Your task to perform on an android device: turn notification dots on Image 0: 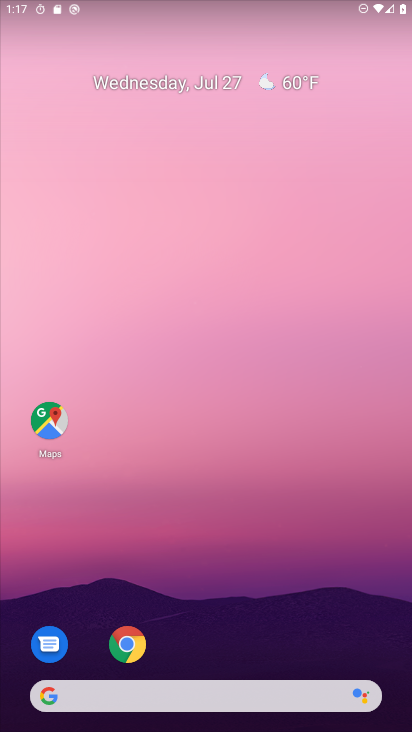
Step 0: drag from (206, 645) to (240, 141)
Your task to perform on an android device: turn notification dots on Image 1: 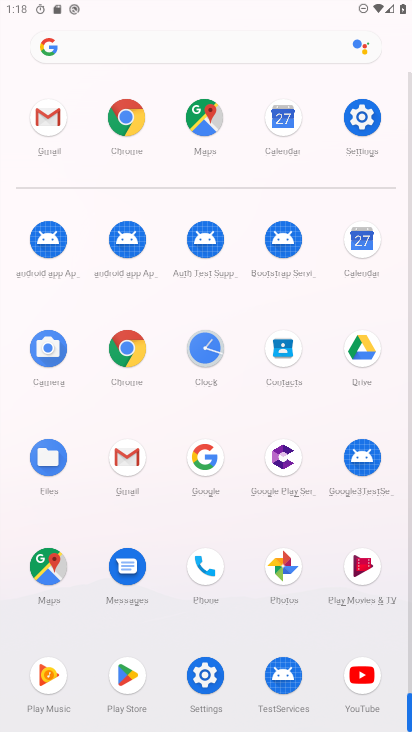
Step 1: click (202, 669)
Your task to perform on an android device: turn notification dots on Image 2: 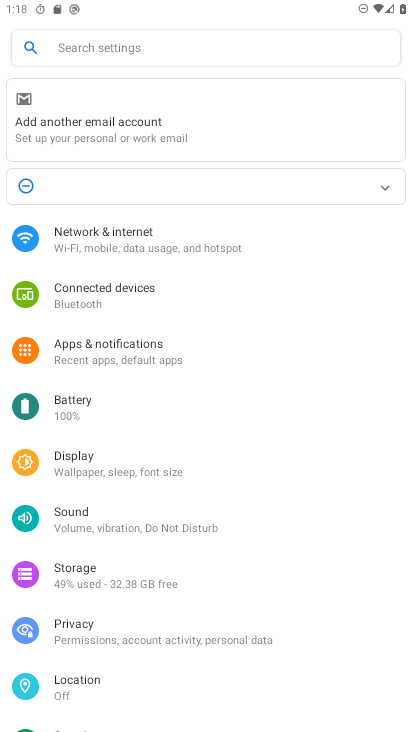
Step 2: drag from (176, 640) to (201, 258)
Your task to perform on an android device: turn notification dots on Image 3: 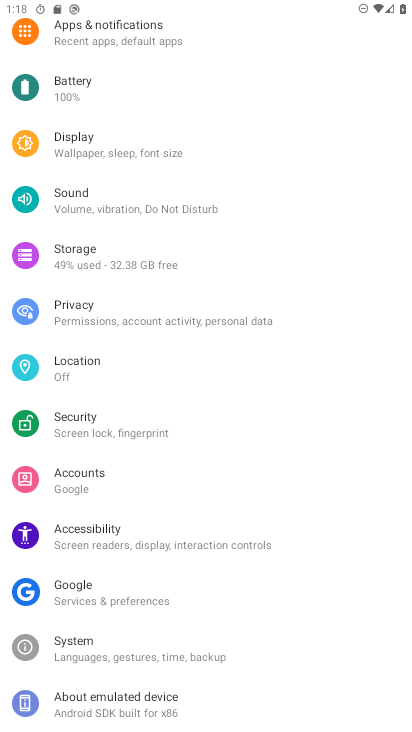
Step 3: drag from (154, 96) to (267, 720)
Your task to perform on an android device: turn notification dots on Image 4: 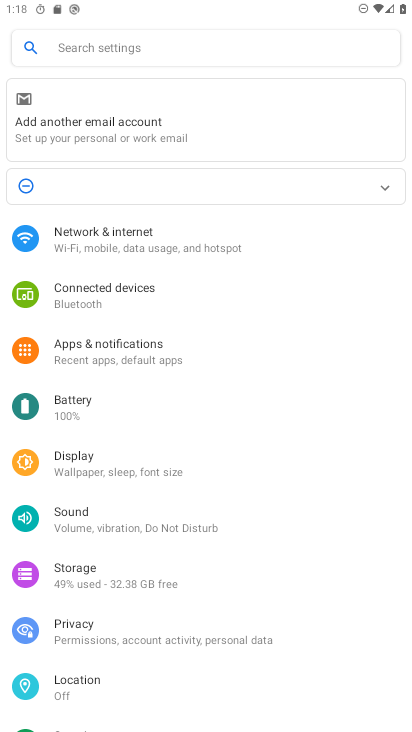
Step 4: click (171, 350)
Your task to perform on an android device: turn notification dots on Image 5: 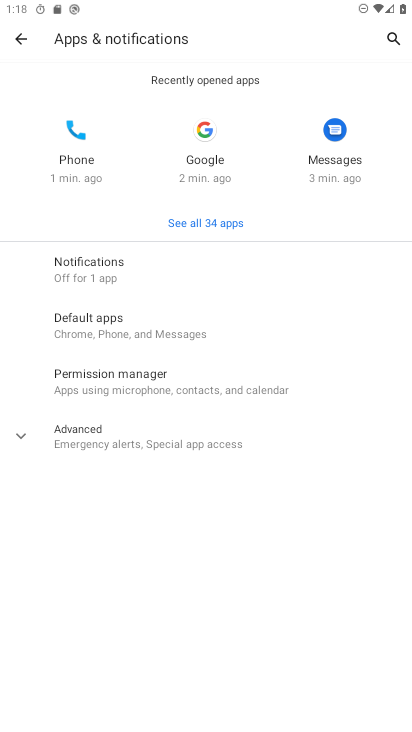
Step 5: drag from (201, 589) to (211, 359)
Your task to perform on an android device: turn notification dots on Image 6: 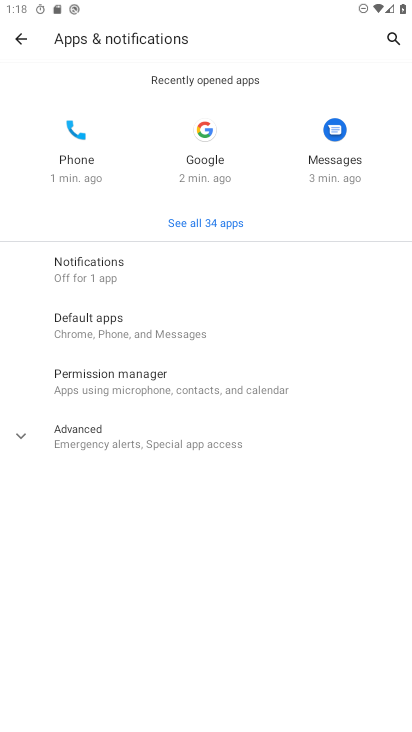
Step 6: click (143, 426)
Your task to perform on an android device: turn notification dots on Image 7: 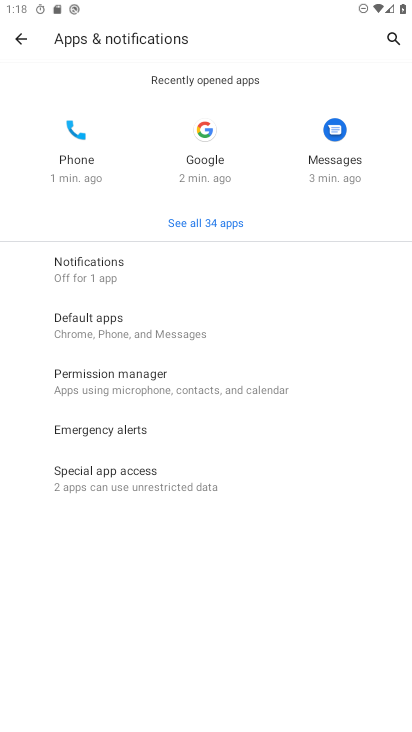
Step 7: click (171, 261)
Your task to perform on an android device: turn notification dots on Image 8: 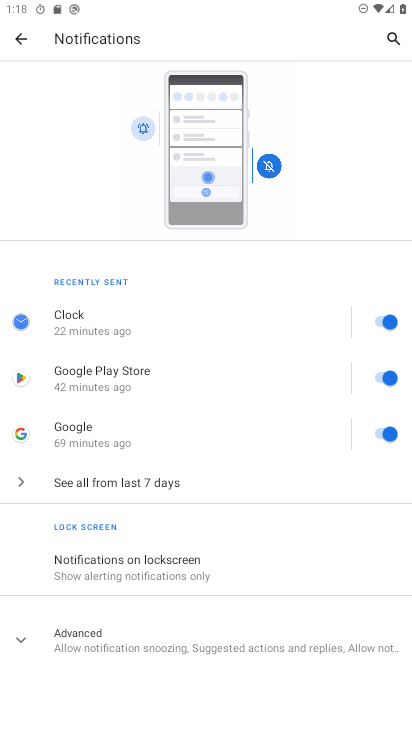
Step 8: drag from (162, 585) to (242, 273)
Your task to perform on an android device: turn notification dots on Image 9: 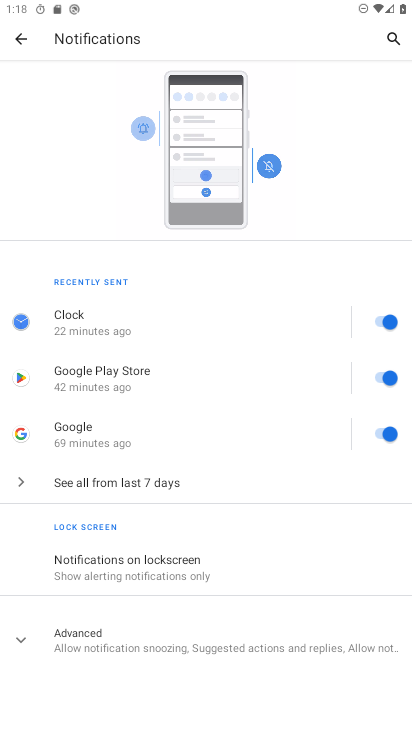
Step 9: click (177, 649)
Your task to perform on an android device: turn notification dots on Image 10: 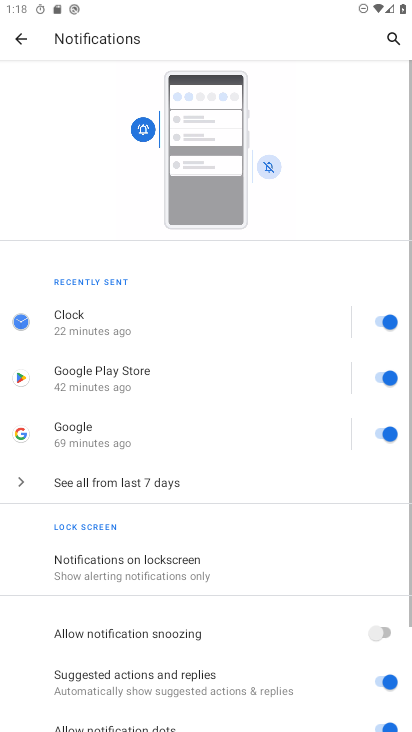
Step 10: drag from (171, 632) to (307, 105)
Your task to perform on an android device: turn notification dots on Image 11: 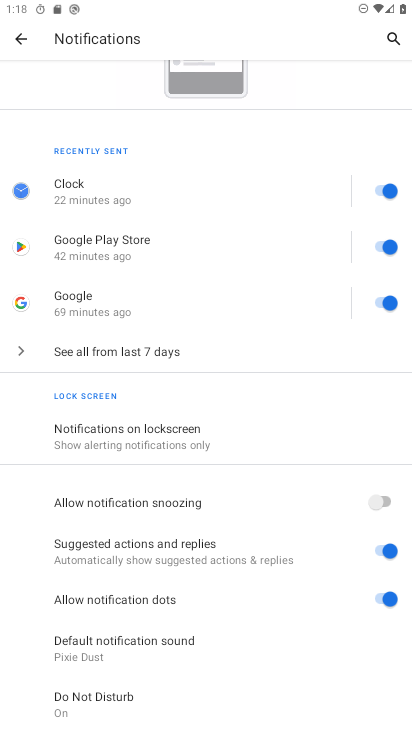
Step 11: click (157, 701)
Your task to perform on an android device: turn notification dots on Image 12: 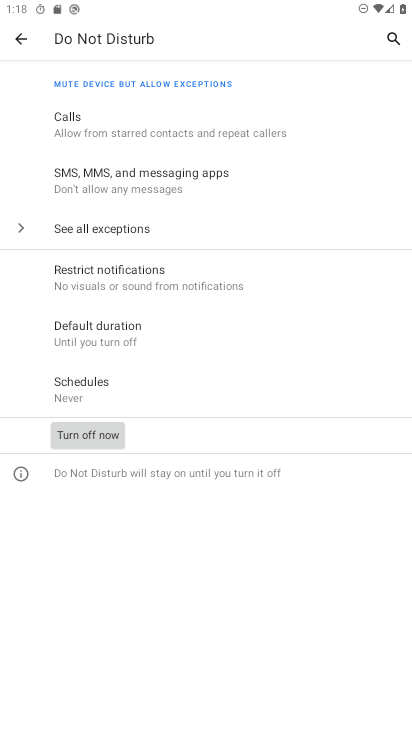
Step 12: click (14, 42)
Your task to perform on an android device: turn notification dots on Image 13: 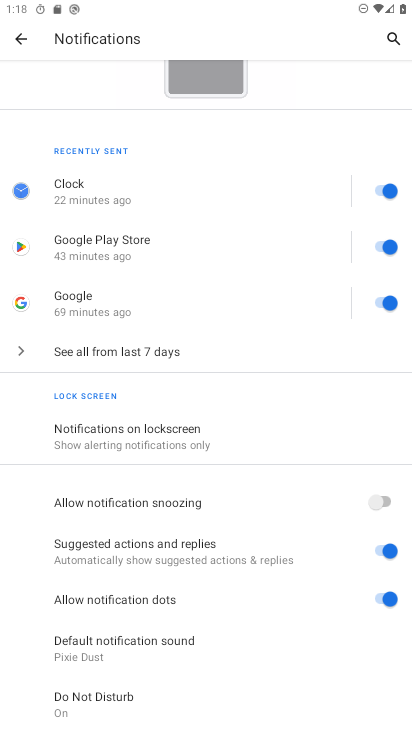
Step 13: task complete